Your task to perform on an android device: toggle priority inbox in the gmail app Image 0: 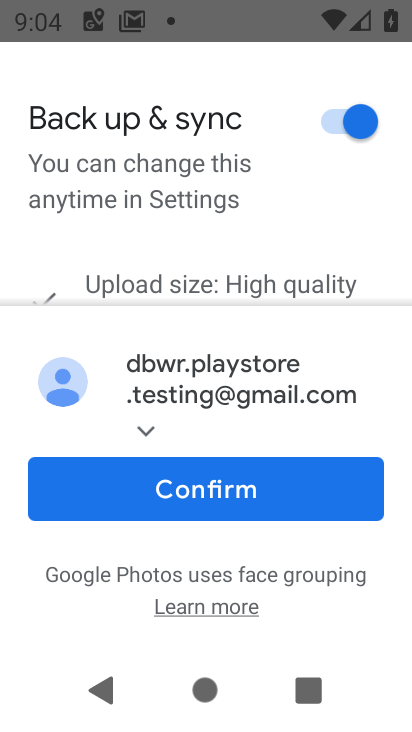
Step 0: press home button
Your task to perform on an android device: toggle priority inbox in the gmail app Image 1: 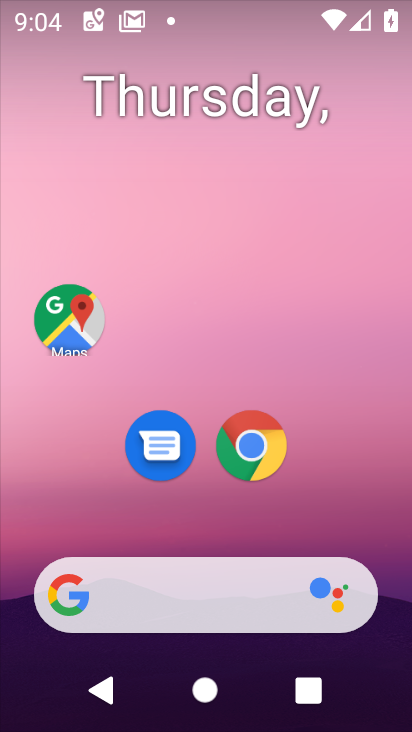
Step 1: drag from (280, 530) to (255, 117)
Your task to perform on an android device: toggle priority inbox in the gmail app Image 2: 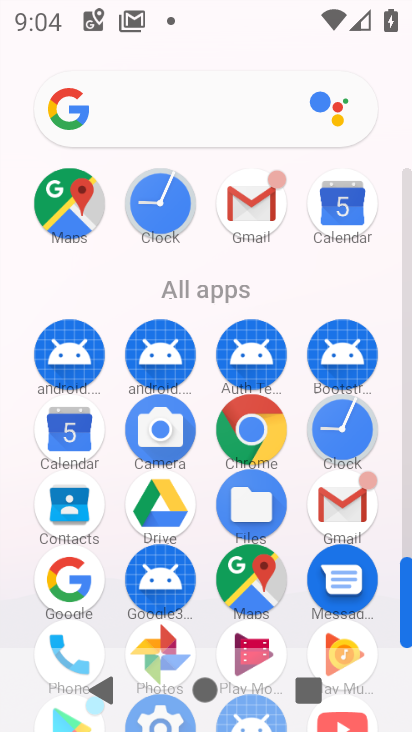
Step 2: click (249, 202)
Your task to perform on an android device: toggle priority inbox in the gmail app Image 3: 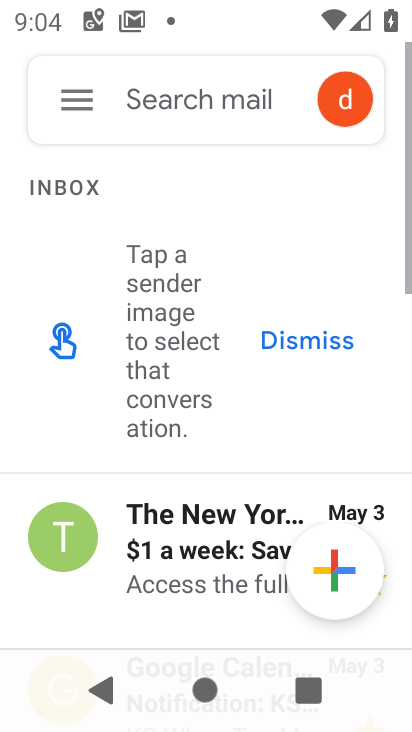
Step 3: click (78, 102)
Your task to perform on an android device: toggle priority inbox in the gmail app Image 4: 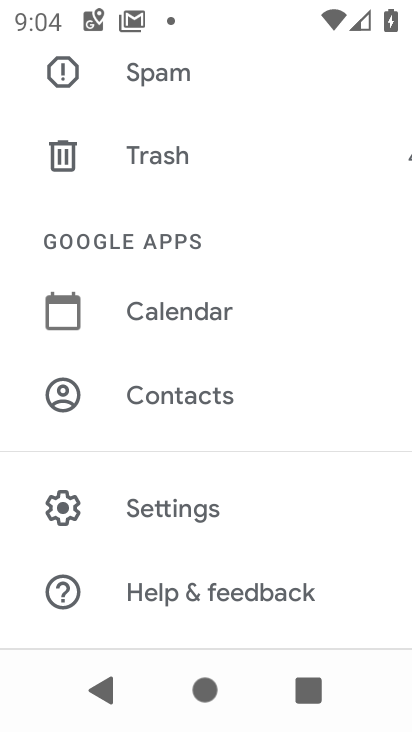
Step 4: click (161, 511)
Your task to perform on an android device: toggle priority inbox in the gmail app Image 5: 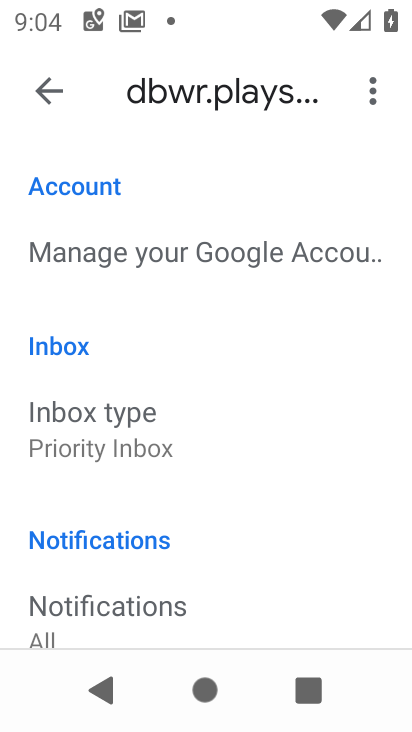
Step 5: click (81, 437)
Your task to perform on an android device: toggle priority inbox in the gmail app Image 6: 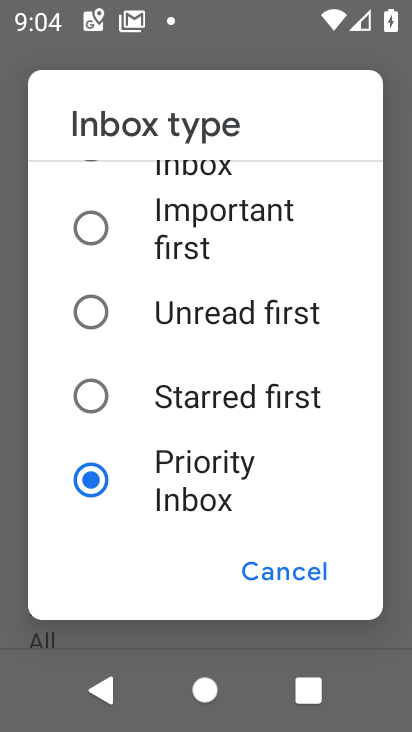
Step 6: click (97, 399)
Your task to perform on an android device: toggle priority inbox in the gmail app Image 7: 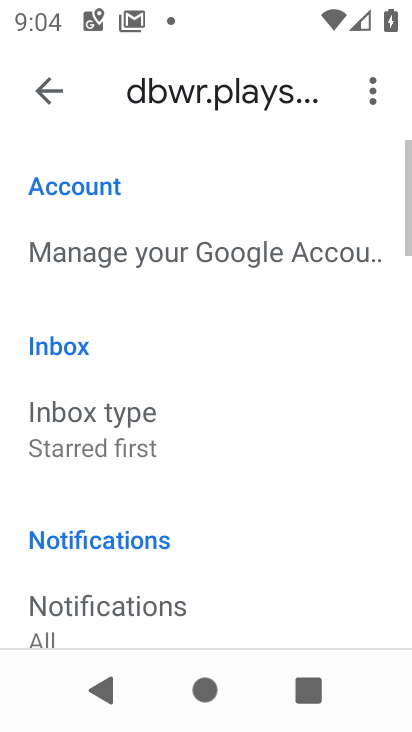
Step 7: task complete